Your task to perform on an android device: Add razer blade to the cart on amazon.com Image 0: 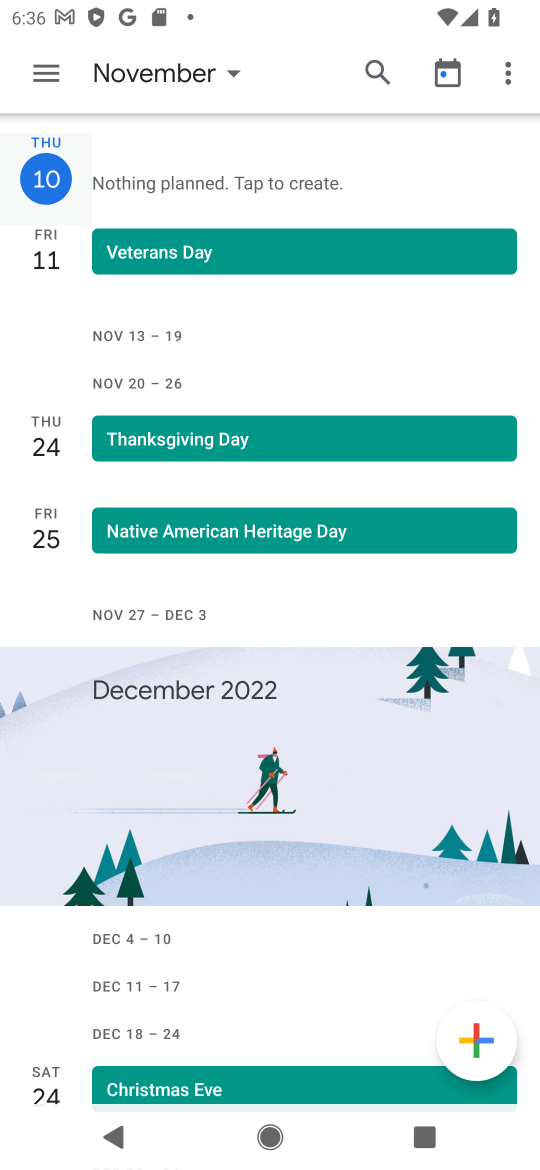
Step 0: press home button
Your task to perform on an android device: Add razer blade to the cart on amazon.com Image 1: 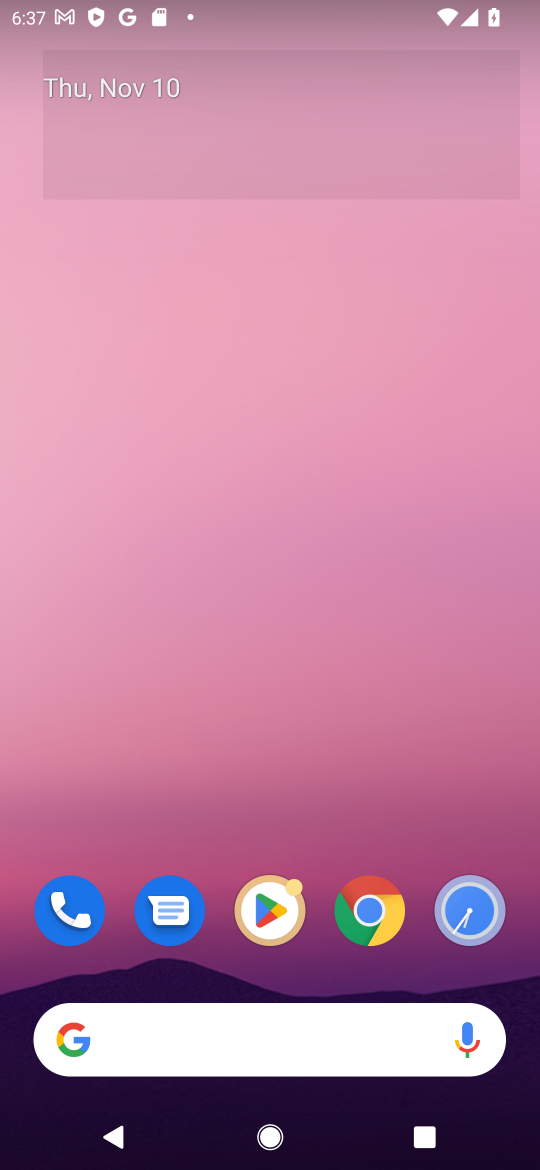
Step 1: click (372, 909)
Your task to perform on an android device: Add razer blade to the cart on amazon.com Image 2: 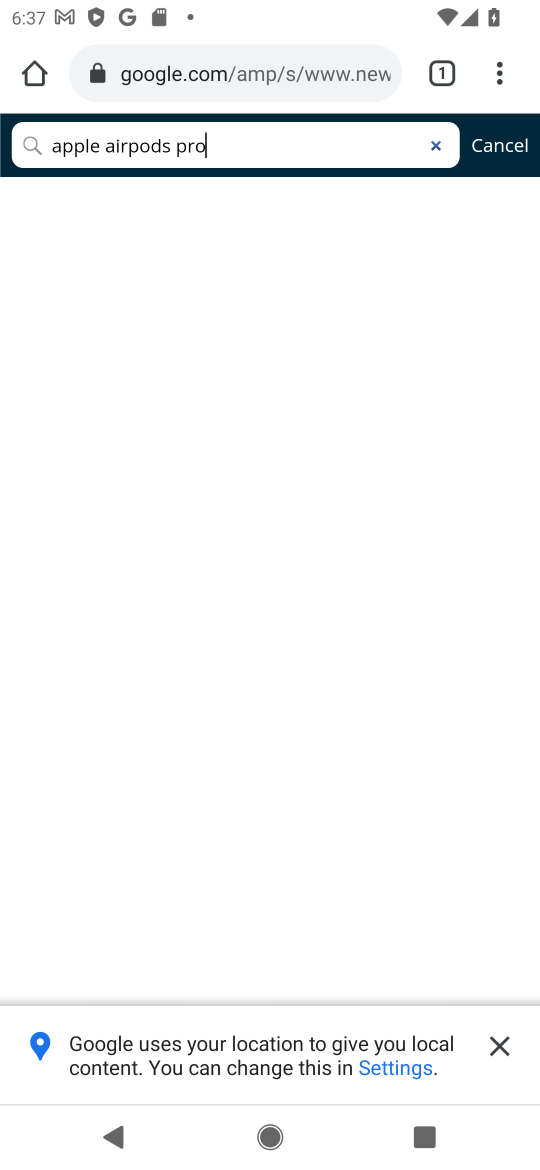
Step 2: click (207, 72)
Your task to perform on an android device: Add razer blade to the cart on amazon.com Image 3: 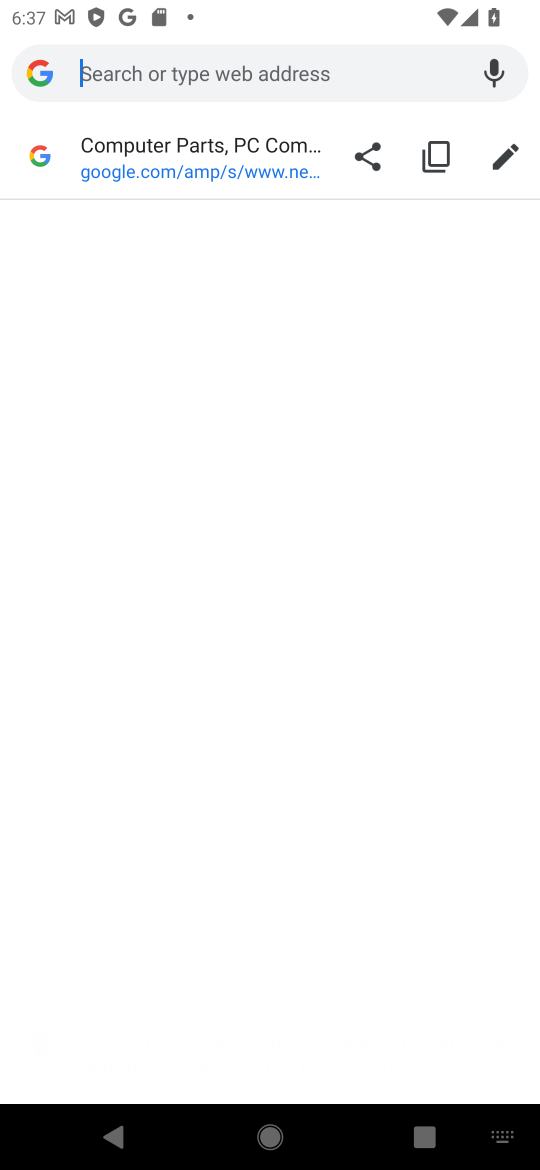
Step 3: type "amazon.com"
Your task to perform on an android device: Add razer blade to the cart on amazon.com Image 4: 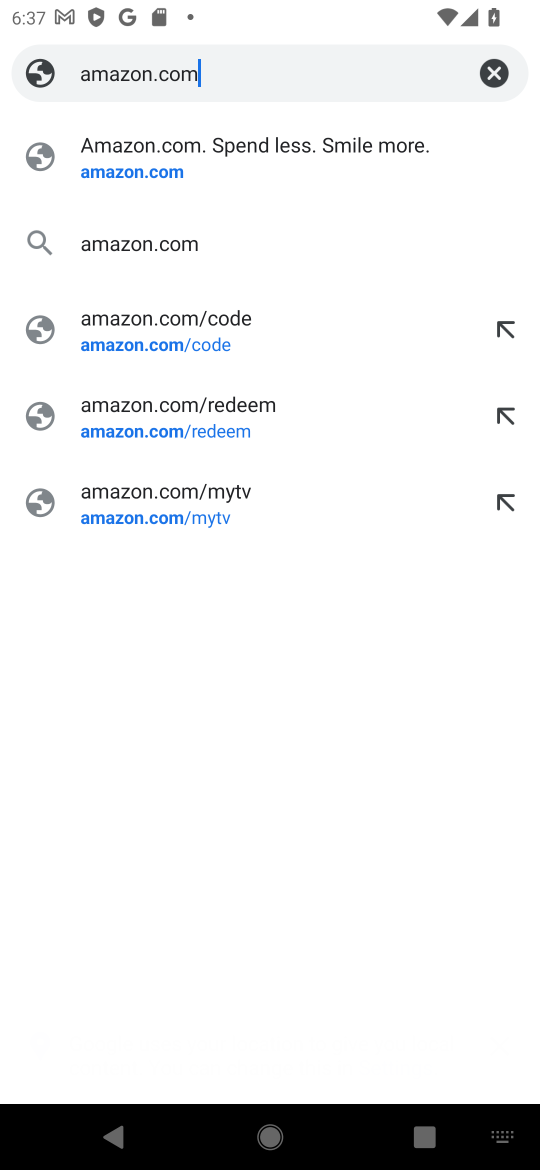
Step 4: click (175, 242)
Your task to perform on an android device: Add razer blade to the cart on amazon.com Image 5: 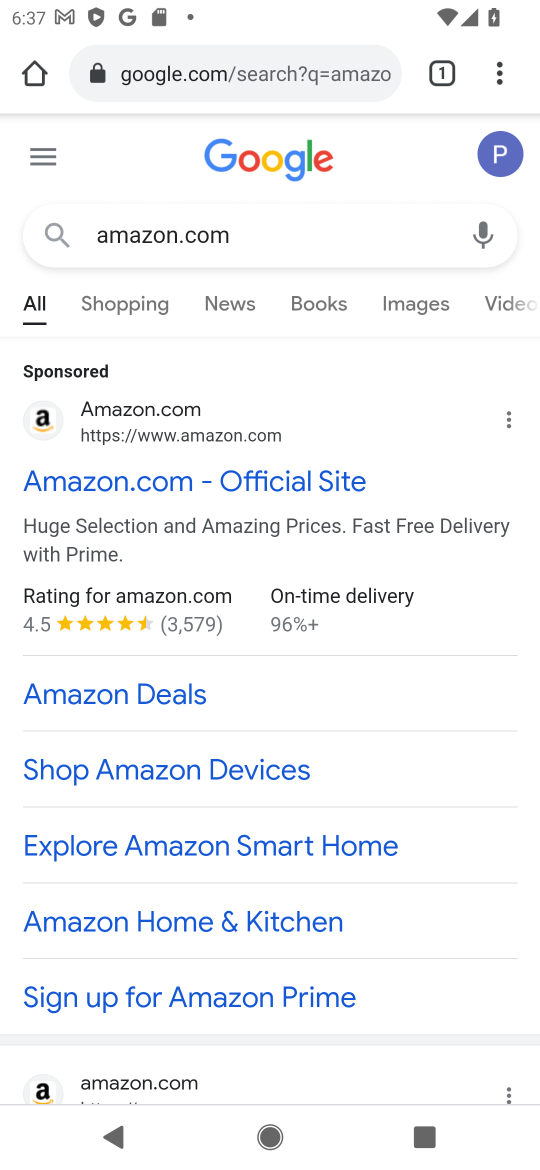
Step 5: drag from (241, 936) to (301, 471)
Your task to perform on an android device: Add razer blade to the cart on amazon.com Image 6: 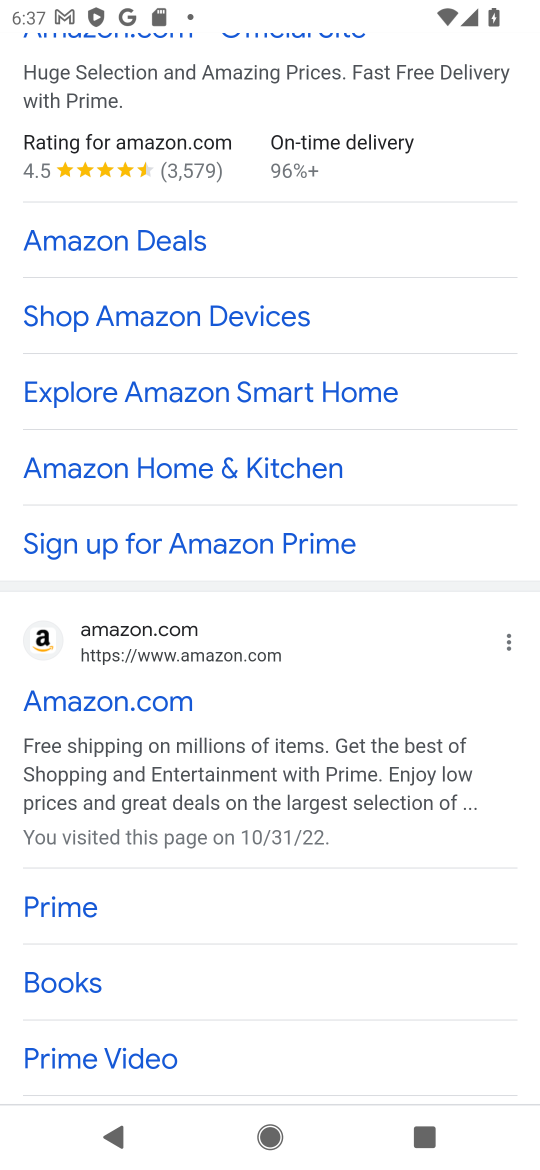
Step 6: click (219, 687)
Your task to perform on an android device: Add razer blade to the cart on amazon.com Image 7: 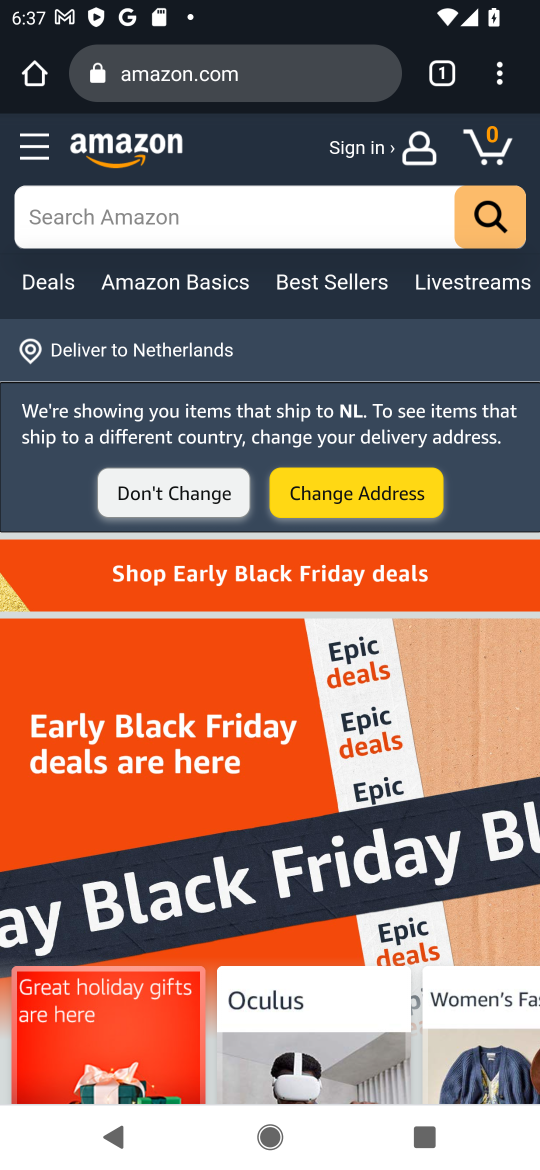
Step 7: click (266, 227)
Your task to perform on an android device: Add razer blade to the cart on amazon.com Image 8: 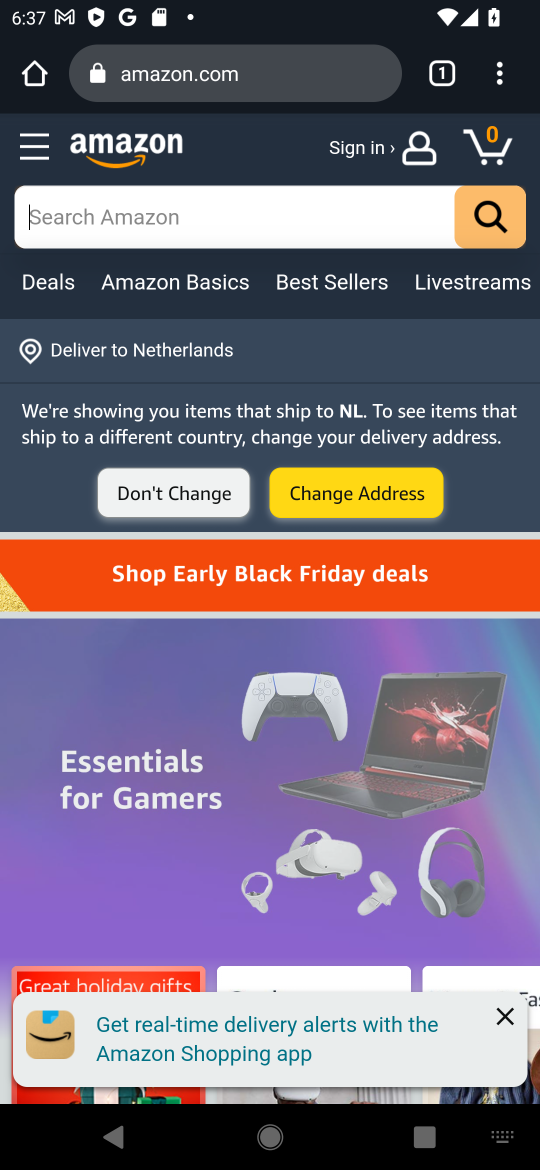
Step 8: type "razer blade"
Your task to perform on an android device: Add razer blade to the cart on amazon.com Image 9: 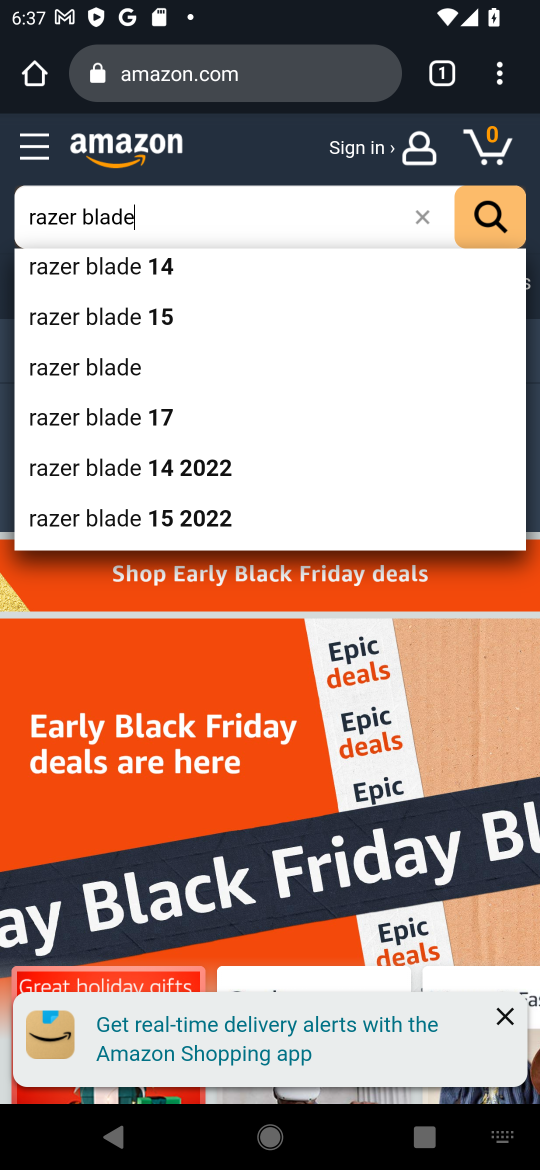
Step 9: click (102, 368)
Your task to perform on an android device: Add razer blade to the cart on amazon.com Image 10: 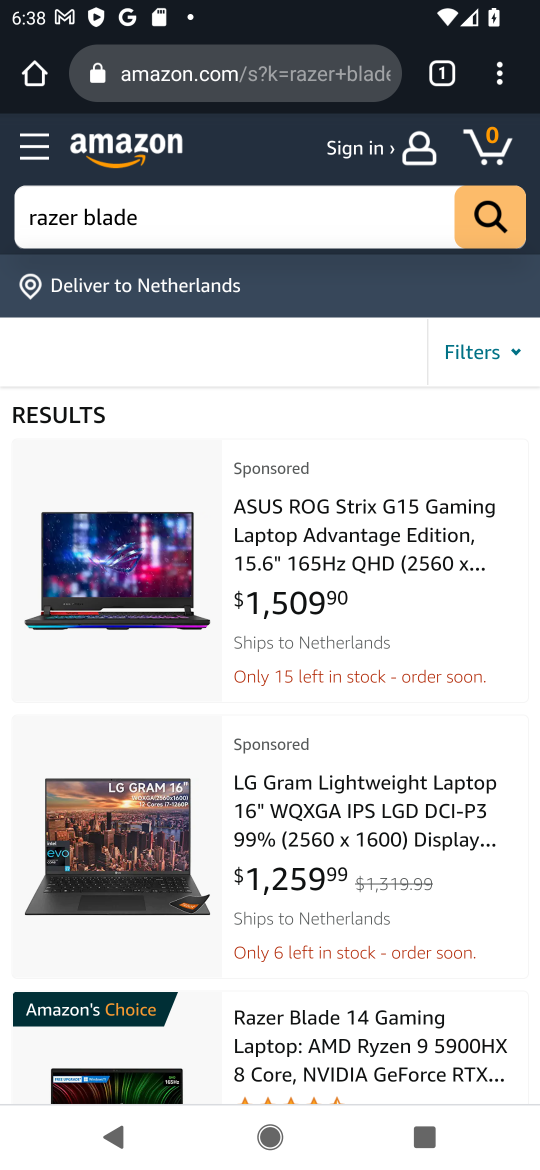
Step 10: click (360, 1019)
Your task to perform on an android device: Add razer blade to the cart on amazon.com Image 11: 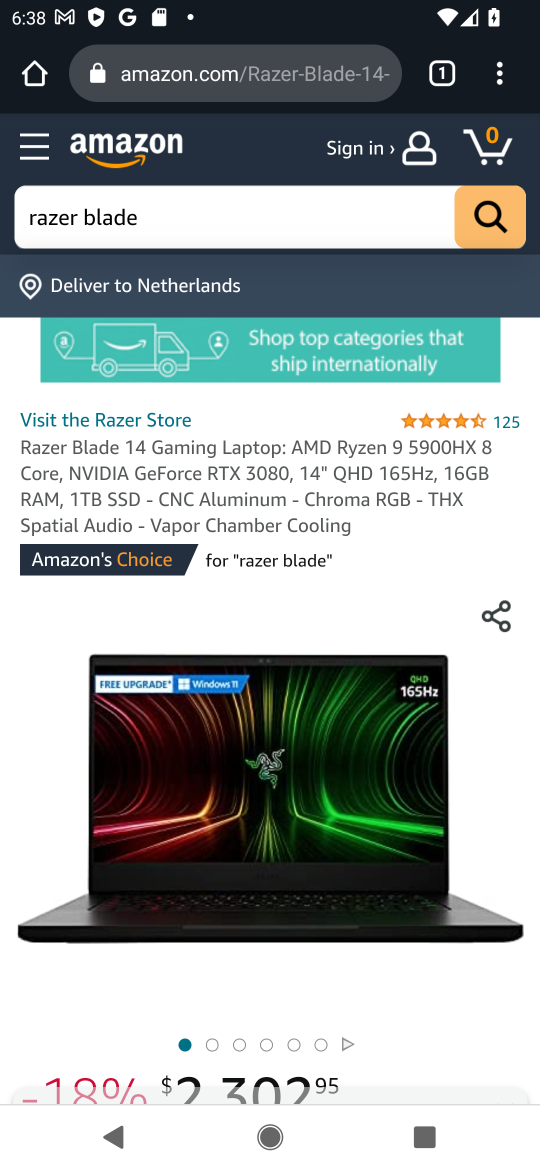
Step 11: drag from (446, 1039) to (418, 430)
Your task to perform on an android device: Add razer blade to the cart on amazon.com Image 12: 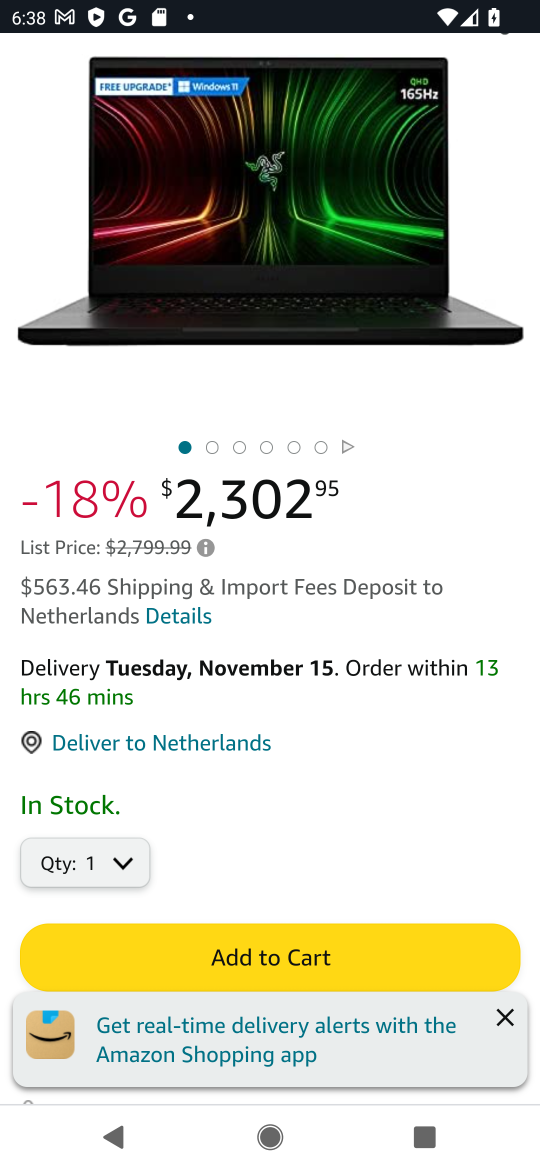
Step 12: drag from (370, 811) to (380, 542)
Your task to perform on an android device: Add razer blade to the cart on amazon.com Image 13: 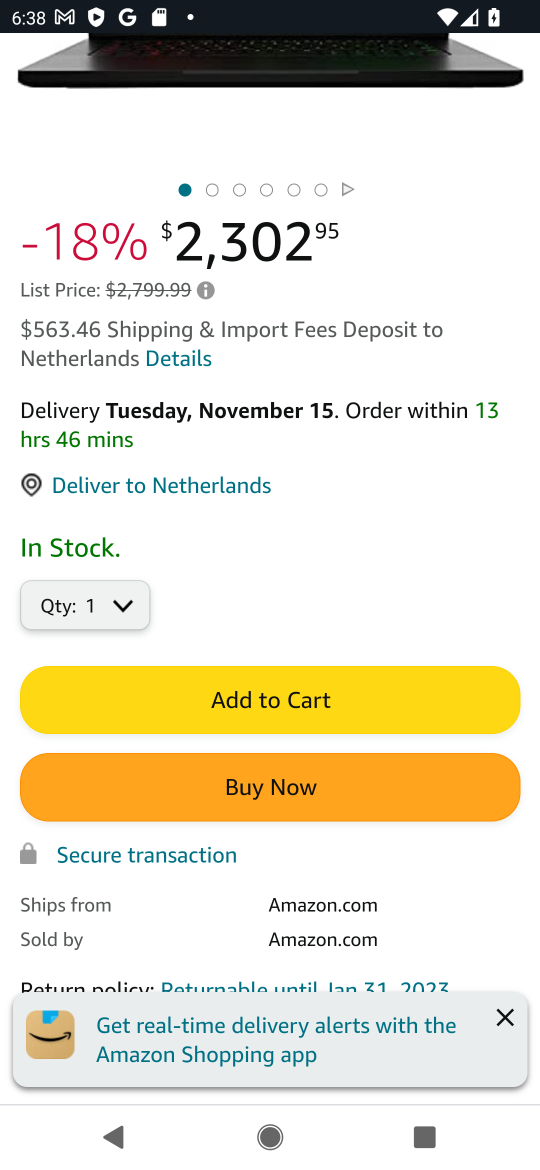
Step 13: click (264, 694)
Your task to perform on an android device: Add razer blade to the cart on amazon.com Image 14: 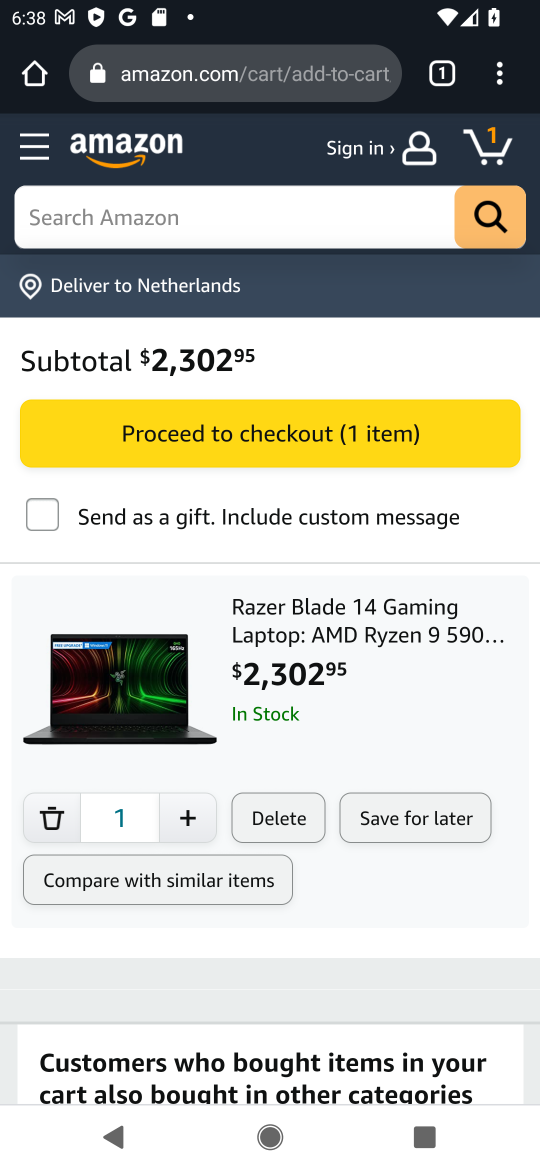
Step 14: task complete